Your task to perform on an android device: Open privacy settings Image 0: 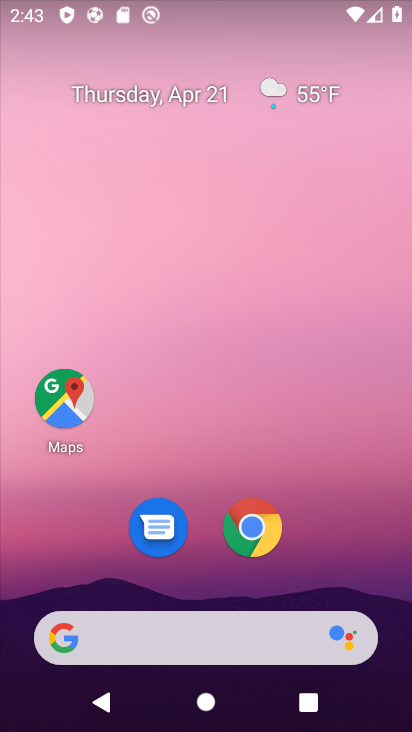
Step 0: click (269, 530)
Your task to perform on an android device: Open privacy settings Image 1: 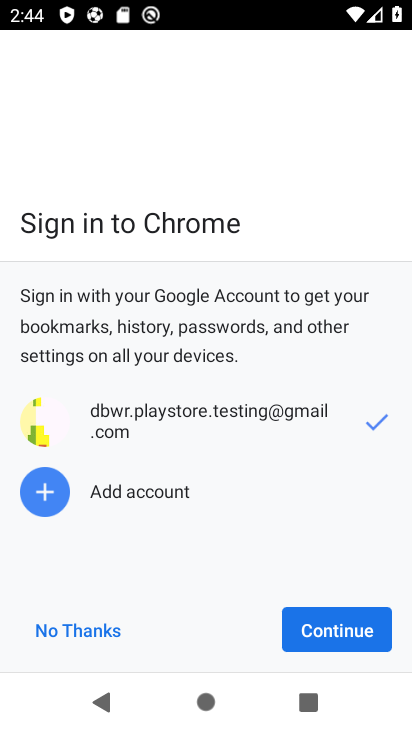
Step 1: click (331, 625)
Your task to perform on an android device: Open privacy settings Image 2: 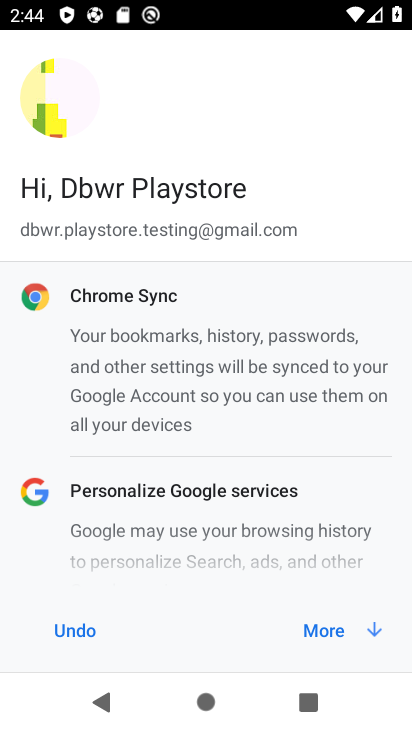
Step 2: click (331, 625)
Your task to perform on an android device: Open privacy settings Image 3: 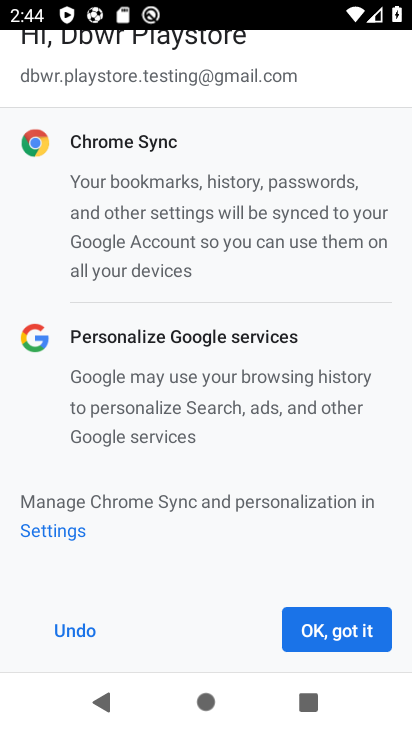
Step 3: click (331, 625)
Your task to perform on an android device: Open privacy settings Image 4: 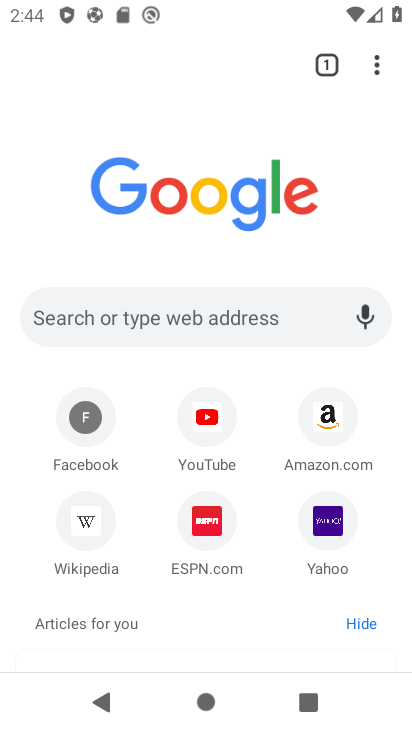
Step 4: click (382, 67)
Your task to perform on an android device: Open privacy settings Image 5: 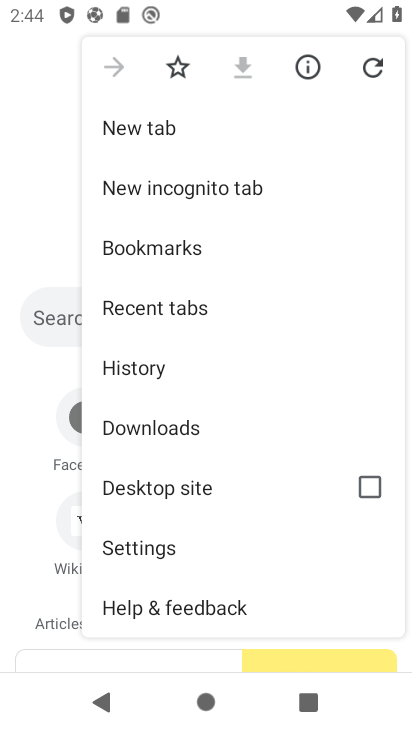
Step 5: click (238, 549)
Your task to perform on an android device: Open privacy settings Image 6: 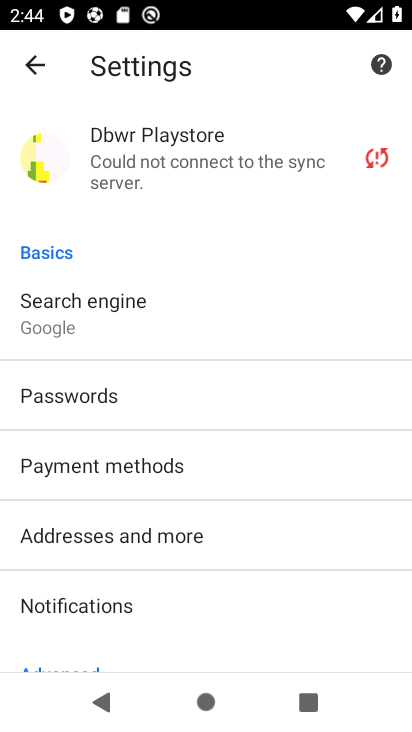
Step 6: drag from (247, 611) to (237, 230)
Your task to perform on an android device: Open privacy settings Image 7: 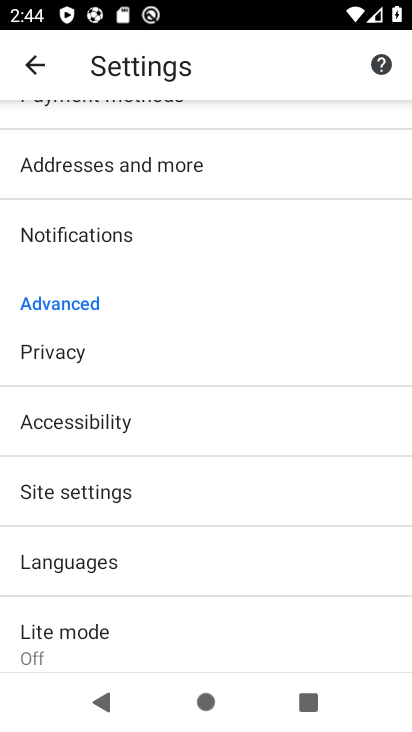
Step 7: click (219, 360)
Your task to perform on an android device: Open privacy settings Image 8: 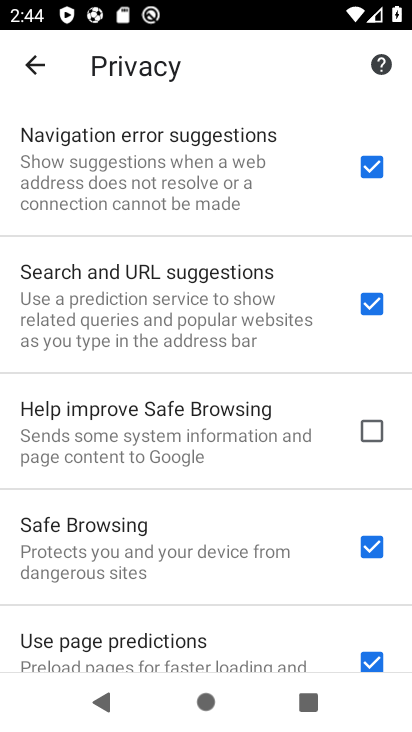
Step 8: task complete